Your task to perform on an android device: Show me popular videos on Youtube Image 0: 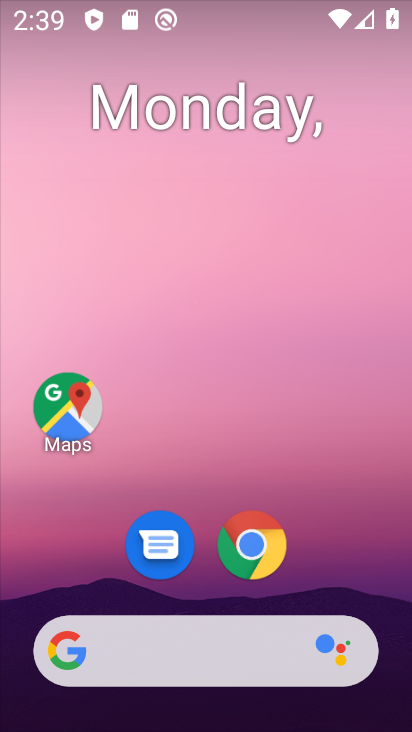
Step 0: drag from (212, 540) to (275, 48)
Your task to perform on an android device: Show me popular videos on Youtube Image 1: 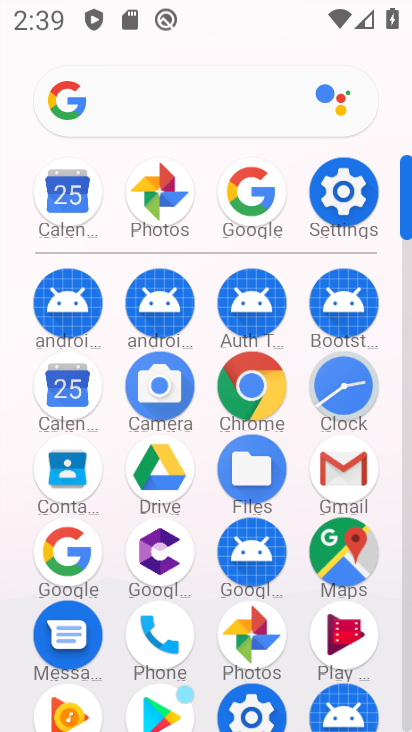
Step 1: drag from (229, 537) to (353, 51)
Your task to perform on an android device: Show me popular videos on Youtube Image 2: 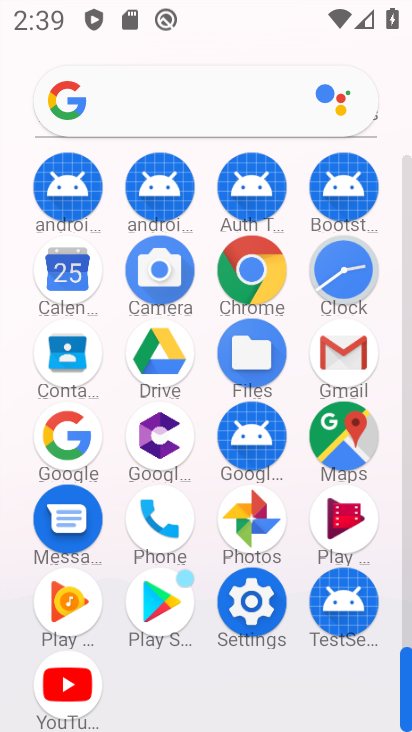
Step 2: click (69, 688)
Your task to perform on an android device: Show me popular videos on Youtube Image 3: 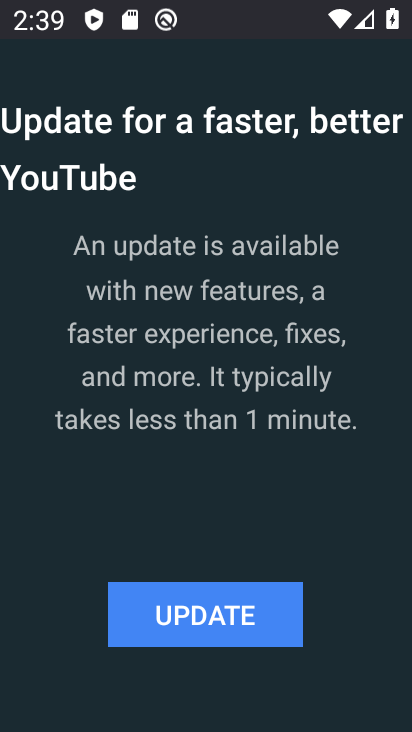
Step 3: click (205, 624)
Your task to perform on an android device: Show me popular videos on Youtube Image 4: 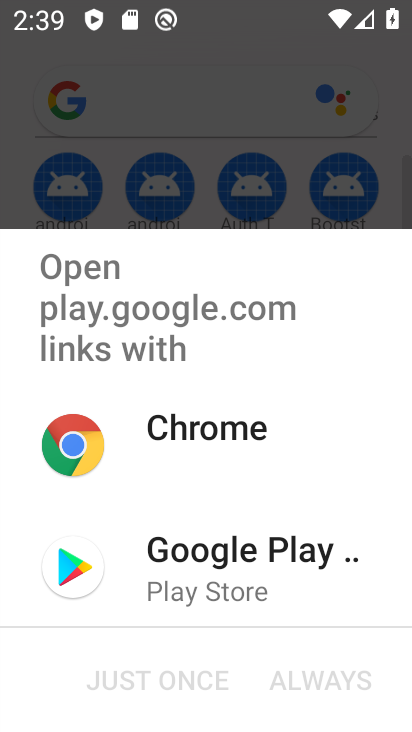
Step 4: click (224, 556)
Your task to perform on an android device: Show me popular videos on Youtube Image 5: 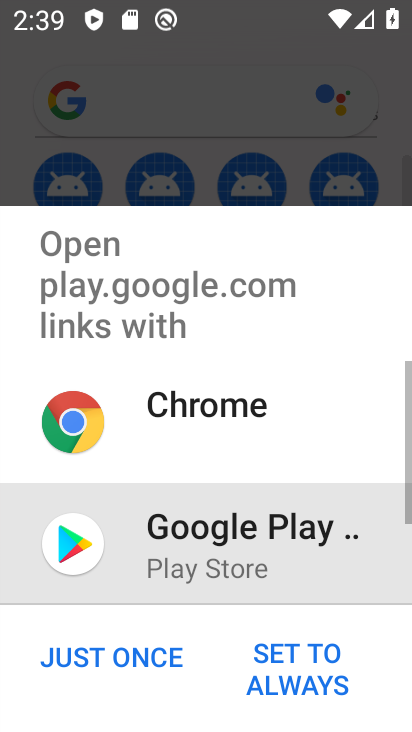
Step 5: click (113, 658)
Your task to perform on an android device: Show me popular videos on Youtube Image 6: 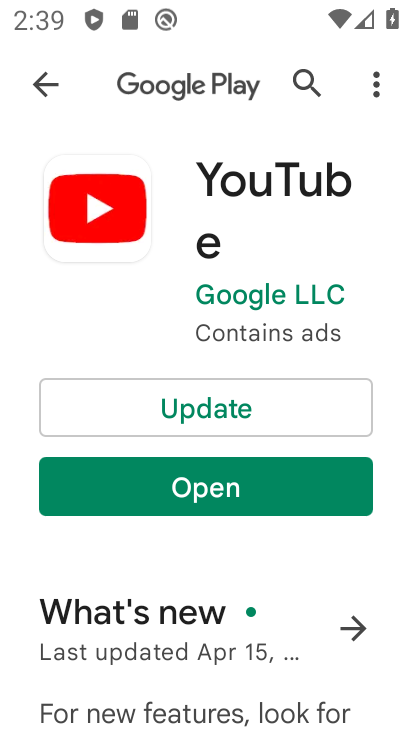
Step 6: click (207, 486)
Your task to perform on an android device: Show me popular videos on Youtube Image 7: 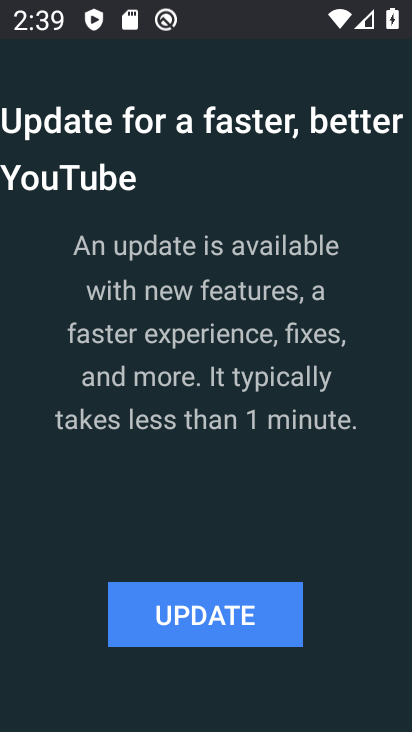
Step 7: click (212, 621)
Your task to perform on an android device: Show me popular videos on Youtube Image 8: 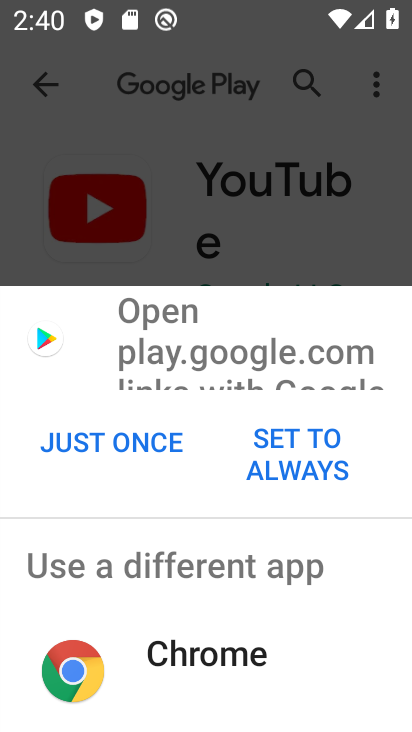
Step 8: click (96, 431)
Your task to perform on an android device: Show me popular videos on Youtube Image 9: 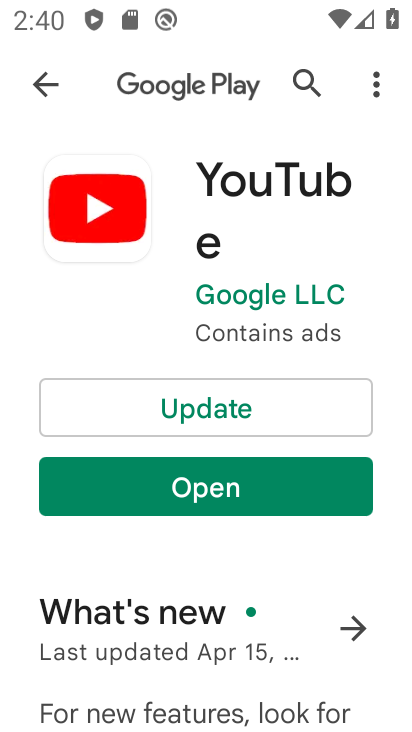
Step 9: click (234, 407)
Your task to perform on an android device: Show me popular videos on Youtube Image 10: 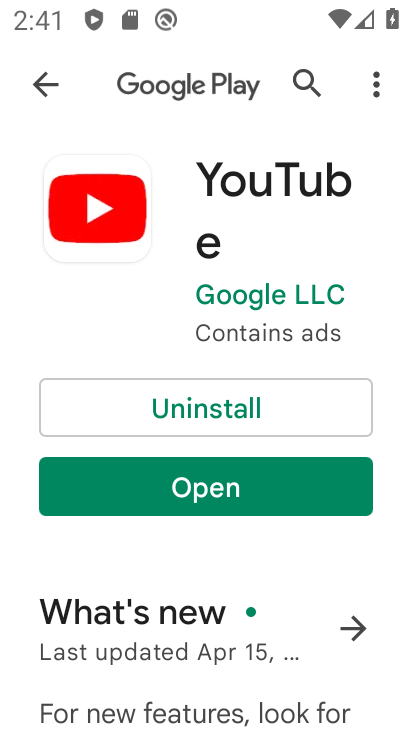
Step 10: click (199, 496)
Your task to perform on an android device: Show me popular videos on Youtube Image 11: 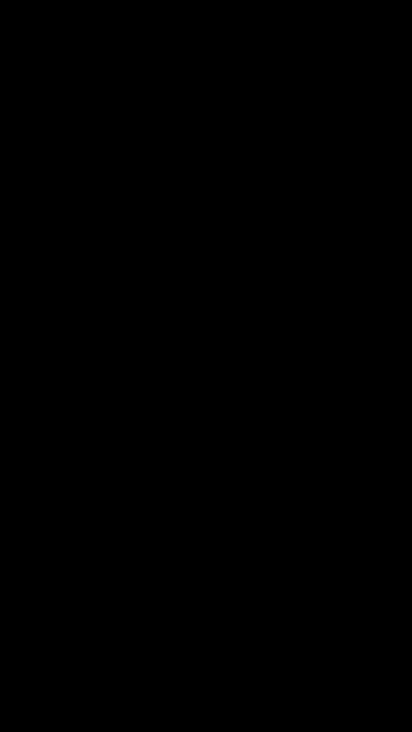
Step 11: press home button
Your task to perform on an android device: Show me popular videos on Youtube Image 12: 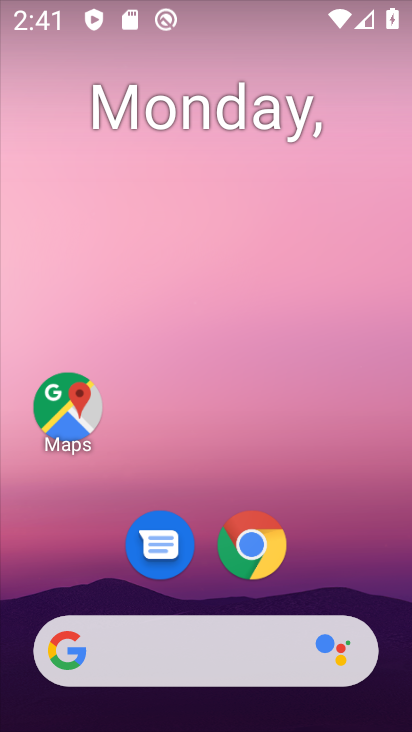
Step 12: drag from (232, 467) to (319, 40)
Your task to perform on an android device: Show me popular videos on Youtube Image 13: 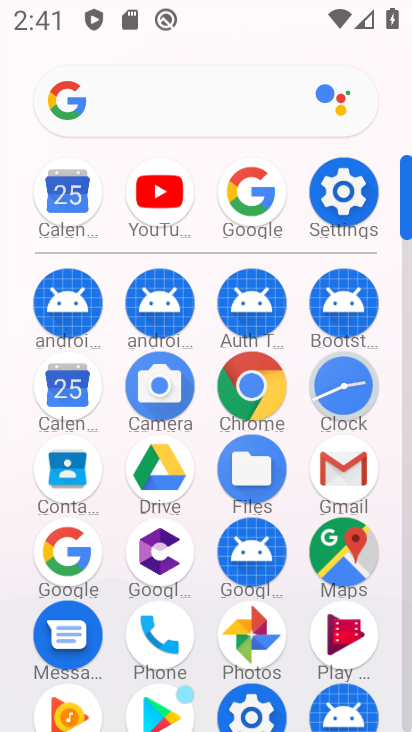
Step 13: click (173, 193)
Your task to perform on an android device: Show me popular videos on Youtube Image 14: 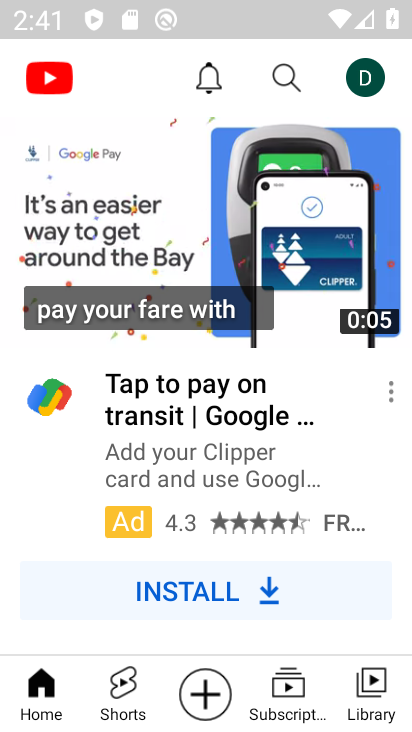
Step 14: click (210, 691)
Your task to perform on an android device: Show me popular videos on Youtube Image 15: 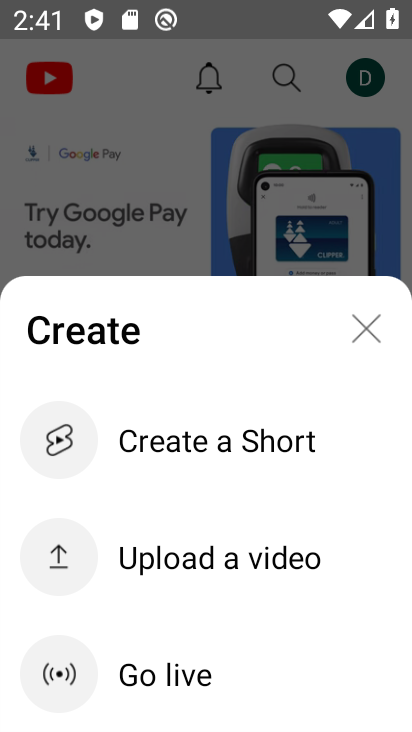
Step 15: click (367, 317)
Your task to perform on an android device: Show me popular videos on Youtube Image 16: 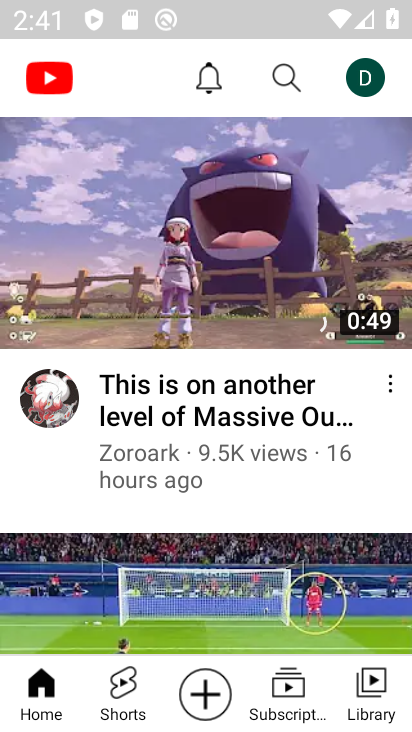
Step 16: click (381, 686)
Your task to perform on an android device: Show me popular videos on Youtube Image 17: 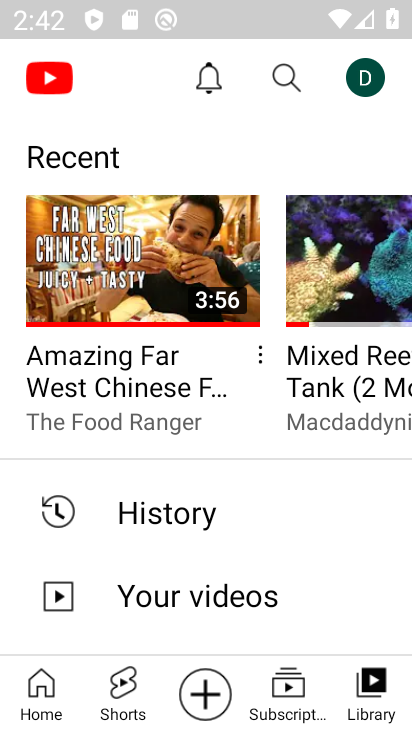
Step 17: click (50, 686)
Your task to perform on an android device: Show me popular videos on Youtube Image 18: 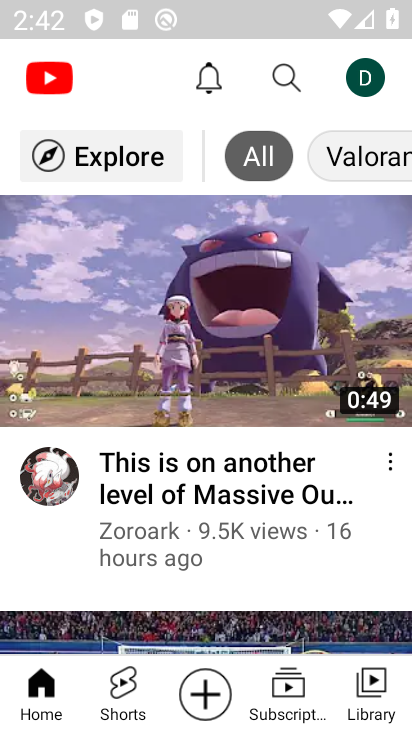
Step 18: click (95, 139)
Your task to perform on an android device: Show me popular videos on Youtube Image 19: 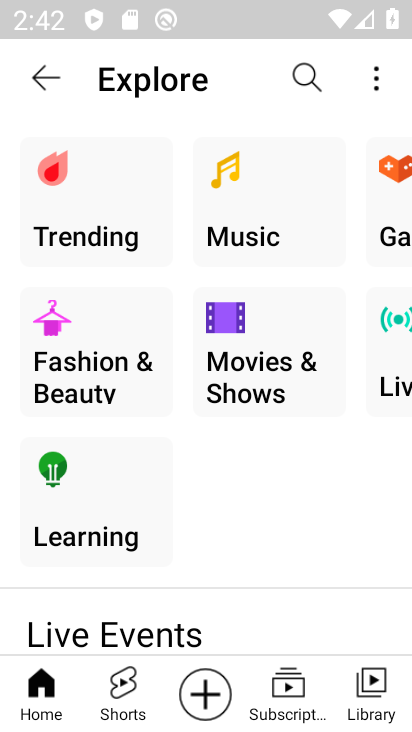
Step 19: click (81, 181)
Your task to perform on an android device: Show me popular videos on Youtube Image 20: 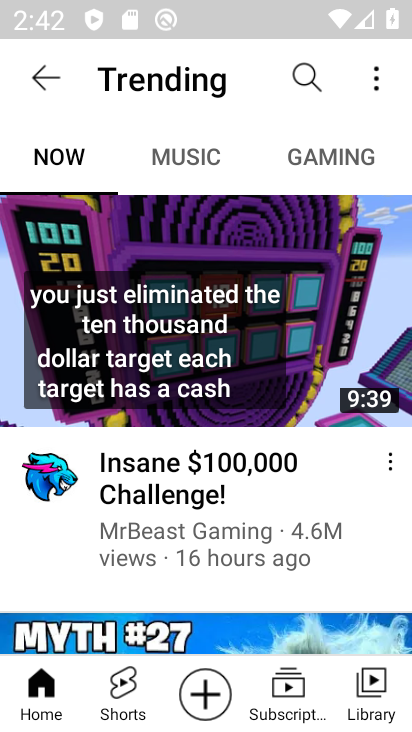
Step 20: task complete